Your task to perform on an android device: What's the weather going to be tomorrow? Image 0: 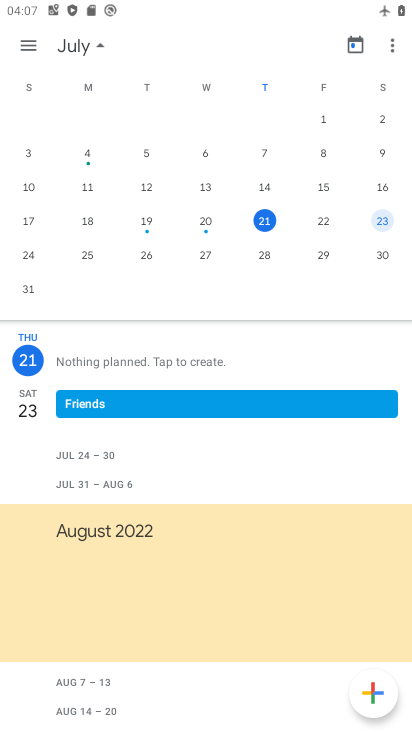
Step 0: press home button
Your task to perform on an android device: What's the weather going to be tomorrow? Image 1: 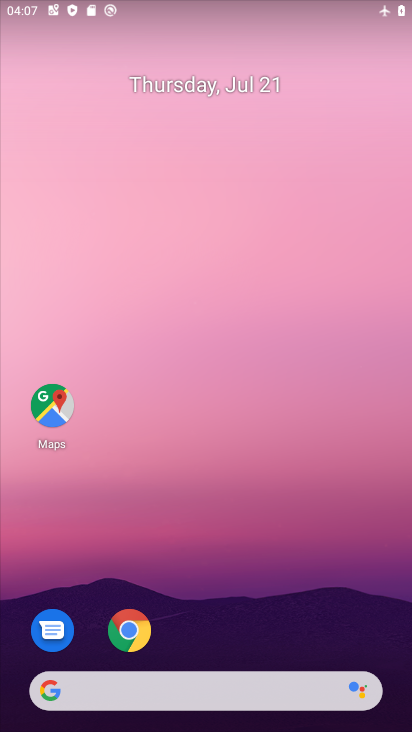
Step 1: click (156, 690)
Your task to perform on an android device: What's the weather going to be tomorrow? Image 2: 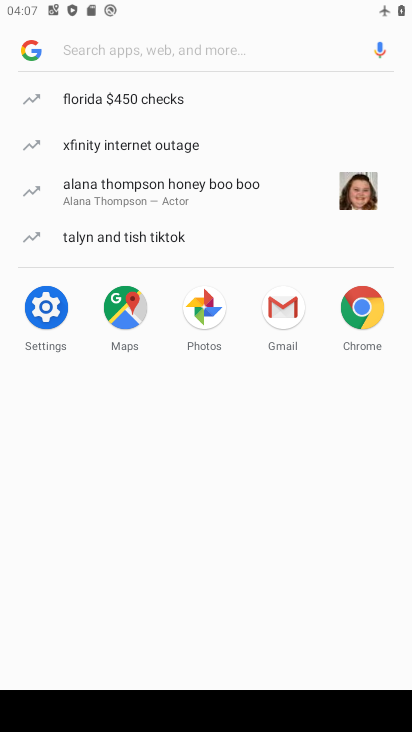
Step 2: type "weather"
Your task to perform on an android device: What's the weather going to be tomorrow? Image 3: 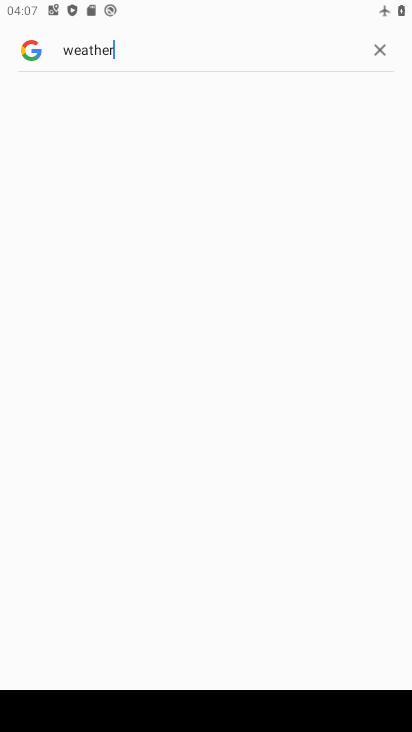
Step 3: drag from (150, 3) to (232, 523)
Your task to perform on an android device: What's the weather going to be tomorrow? Image 4: 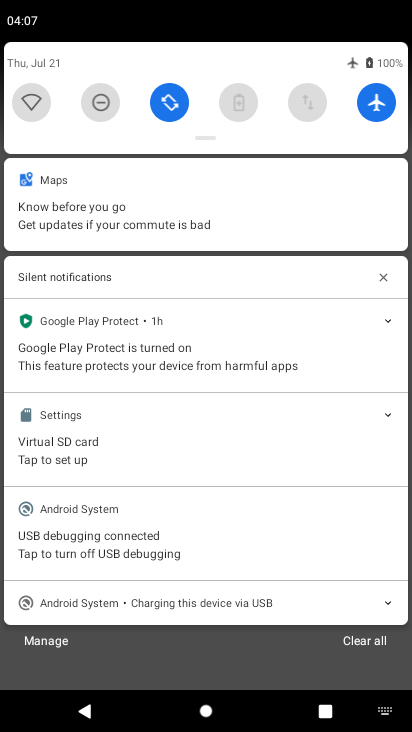
Step 4: click (383, 92)
Your task to perform on an android device: What's the weather going to be tomorrow? Image 5: 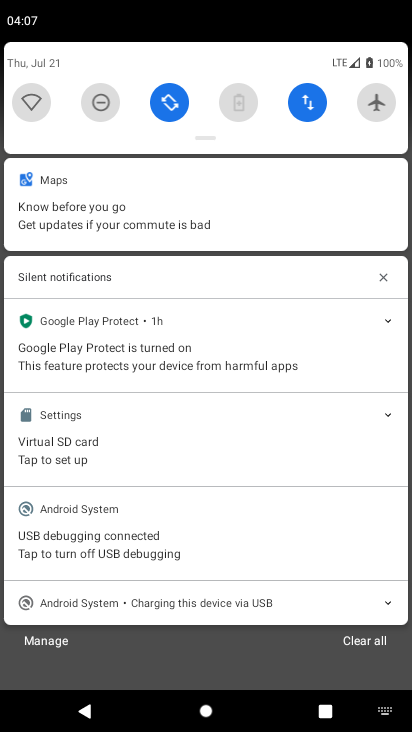
Step 5: task complete